Your task to perform on an android device: turn on airplane mode Image 0: 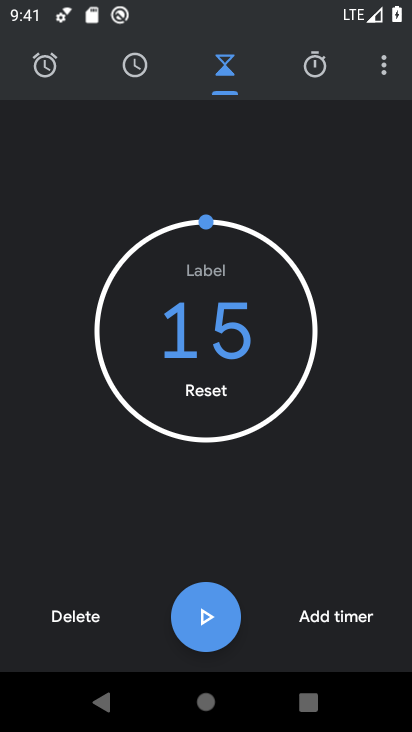
Step 0: press home button
Your task to perform on an android device: turn on airplane mode Image 1: 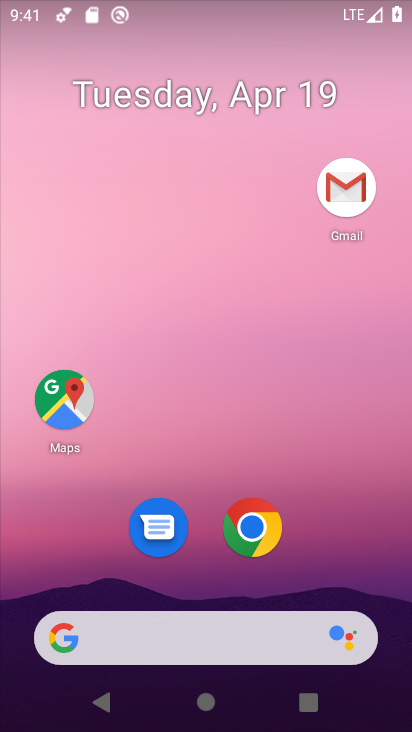
Step 1: drag from (362, 458) to (378, 84)
Your task to perform on an android device: turn on airplane mode Image 2: 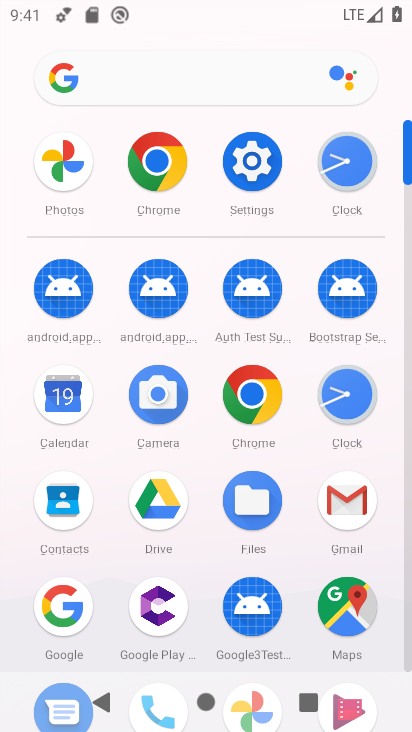
Step 2: click (245, 160)
Your task to perform on an android device: turn on airplane mode Image 3: 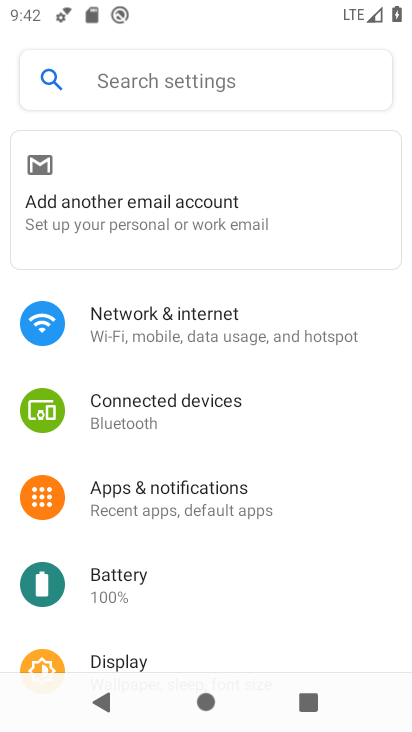
Step 3: click (240, 333)
Your task to perform on an android device: turn on airplane mode Image 4: 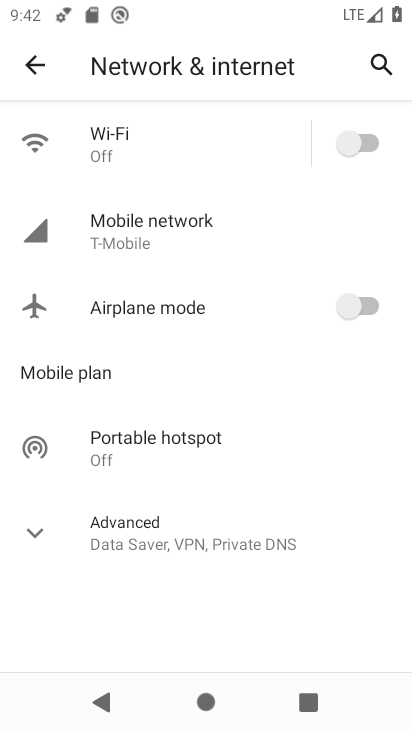
Step 4: click (375, 306)
Your task to perform on an android device: turn on airplane mode Image 5: 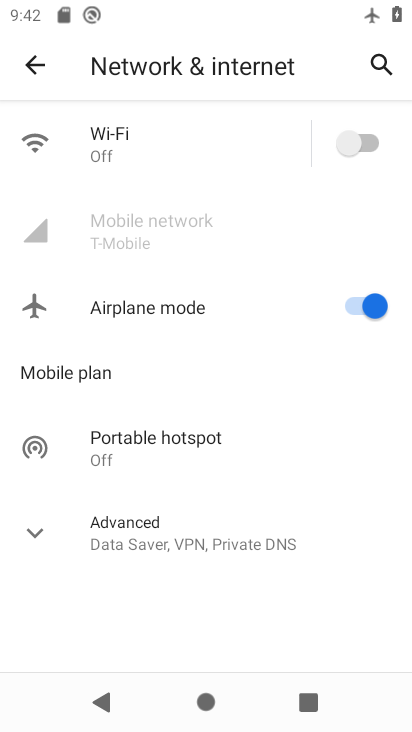
Step 5: task complete